Your task to perform on an android device: uninstall "Adobe Acrobat Reader" Image 0: 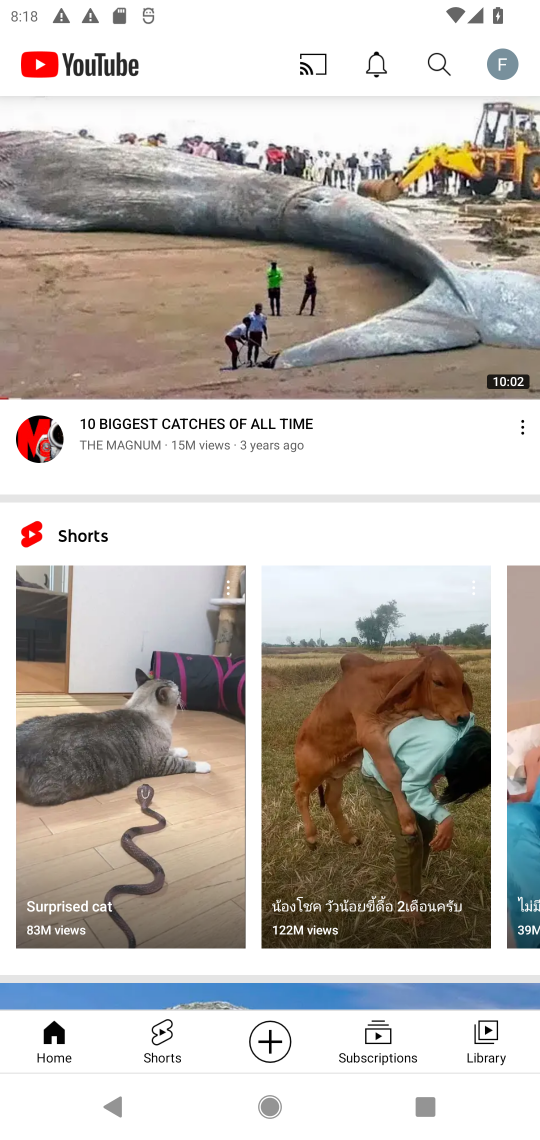
Step 0: press home button
Your task to perform on an android device: uninstall "Adobe Acrobat Reader" Image 1: 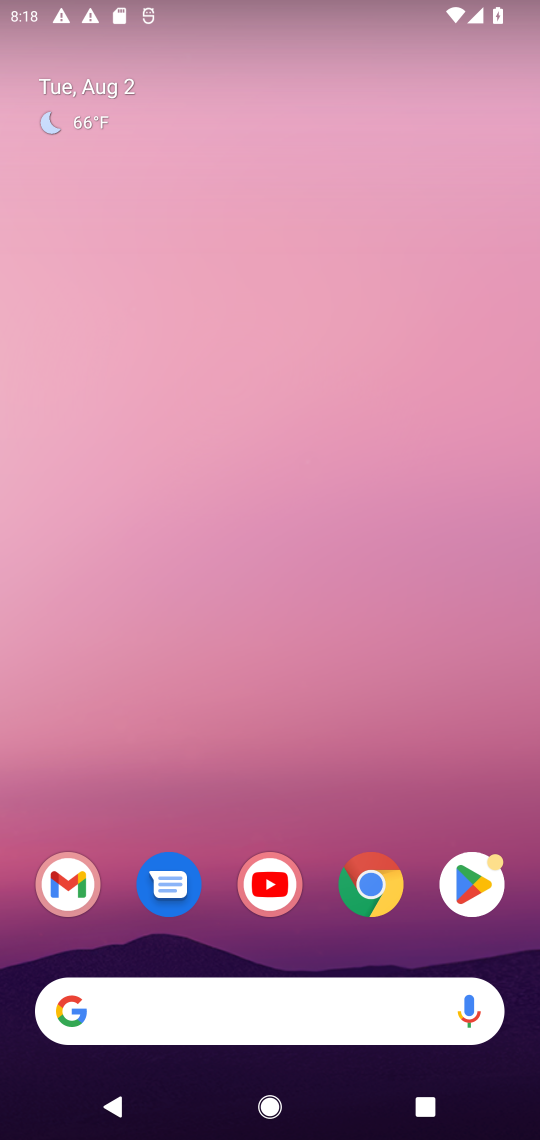
Step 1: click (479, 865)
Your task to perform on an android device: uninstall "Adobe Acrobat Reader" Image 2: 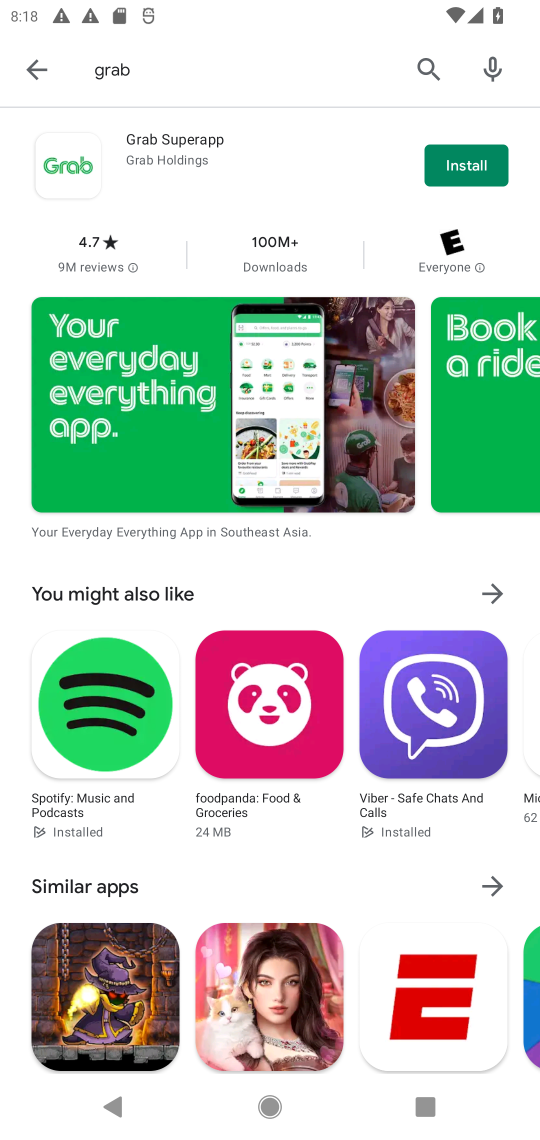
Step 2: click (427, 62)
Your task to perform on an android device: uninstall "Adobe Acrobat Reader" Image 3: 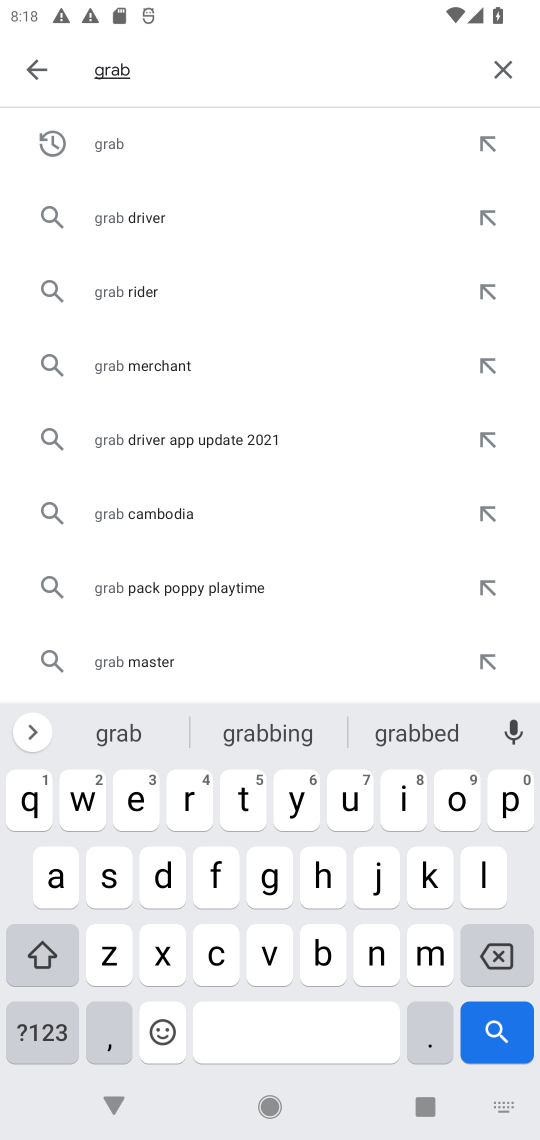
Step 3: click (490, 67)
Your task to perform on an android device: uninstall "Adobe Acrobat Reader" Image 4: 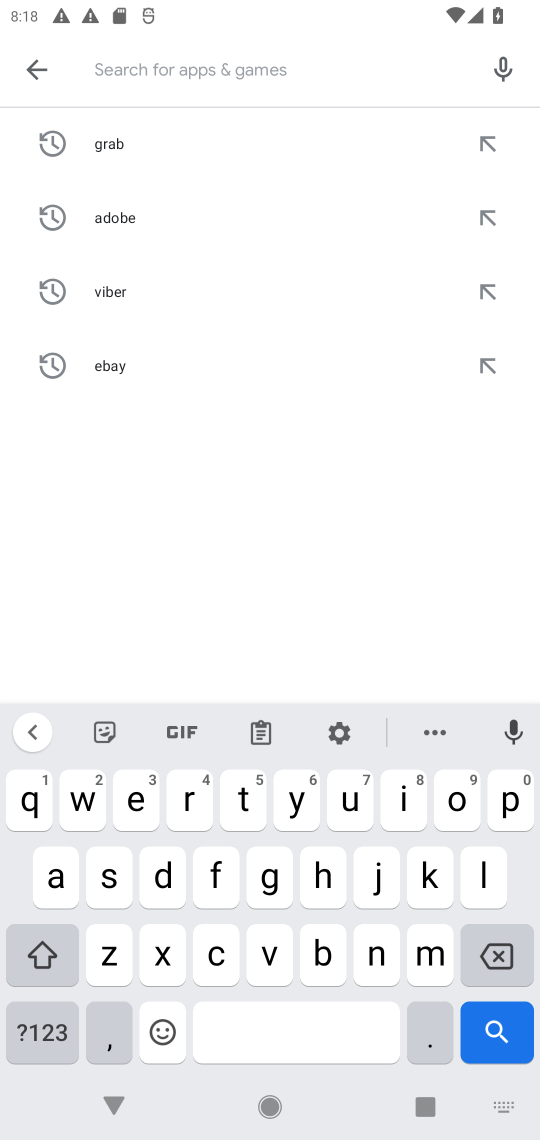
Step 4: click (59, 874)
Your task to perform on an android device: uninstall "Adobe Acrobat Reader" Image 5: 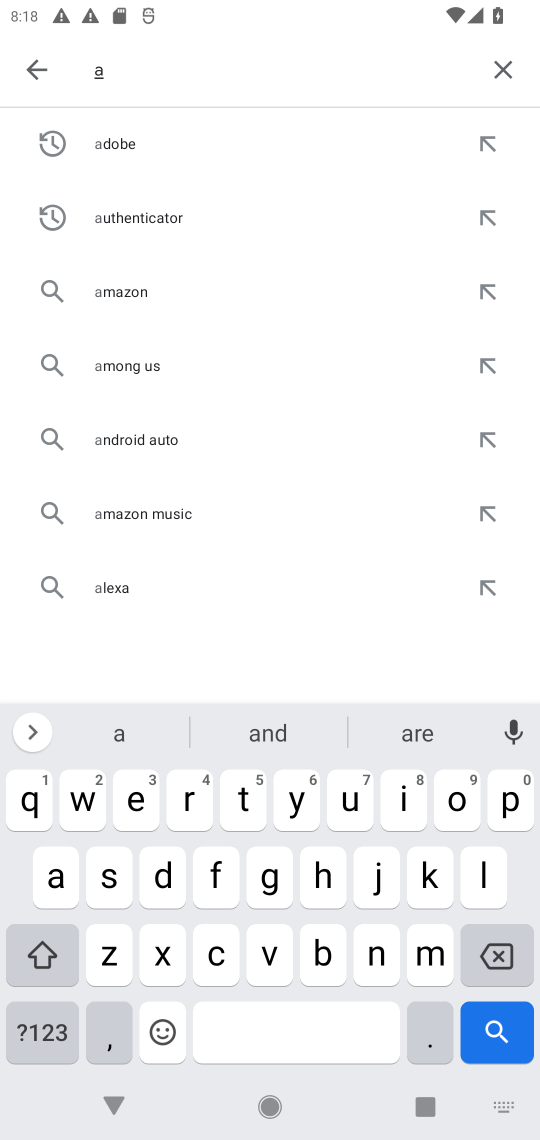
Step 5: click (165, 873)
Your task to perform on an android device: uninstall "Adobe Acrobat Reader" Image 6: 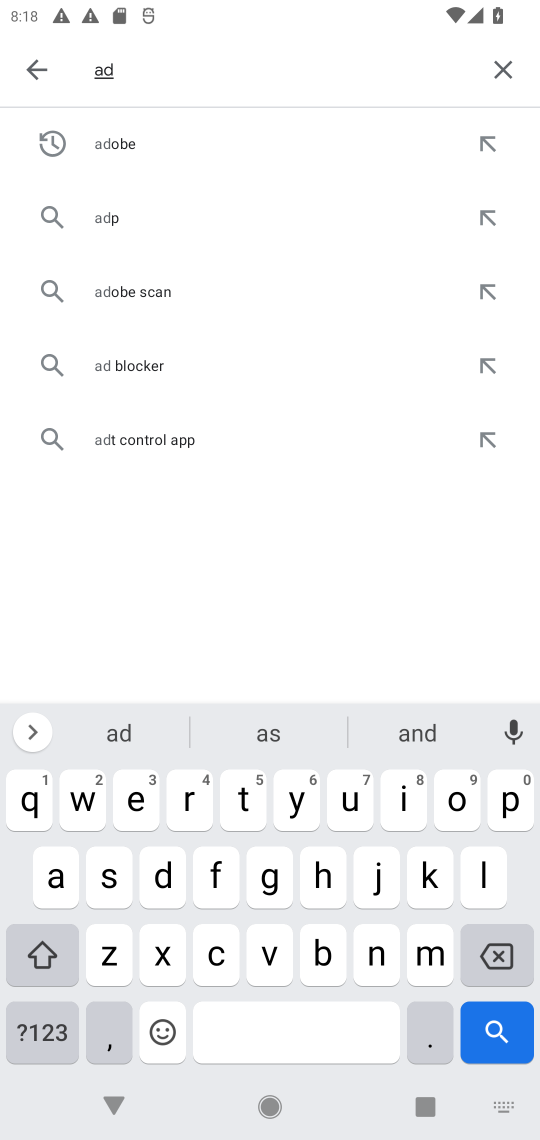
Step 6: click (149, 145)
Your task to perform on an android device: uninstall "Adobe Acrobat Reader" Image 7: 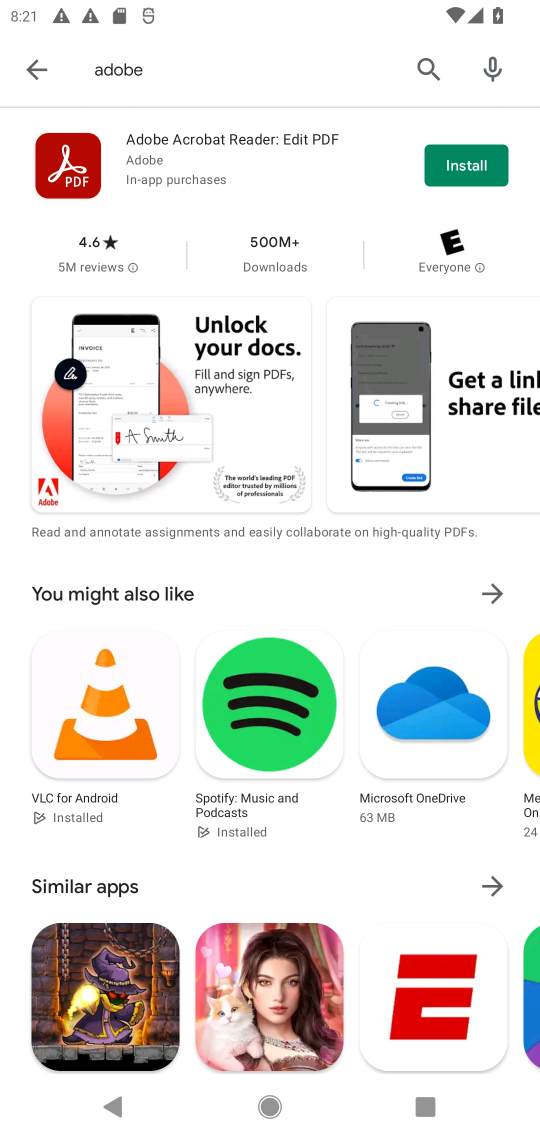
Step 7: task complete